Your task to perform on an android device: toggle location history Image 0: 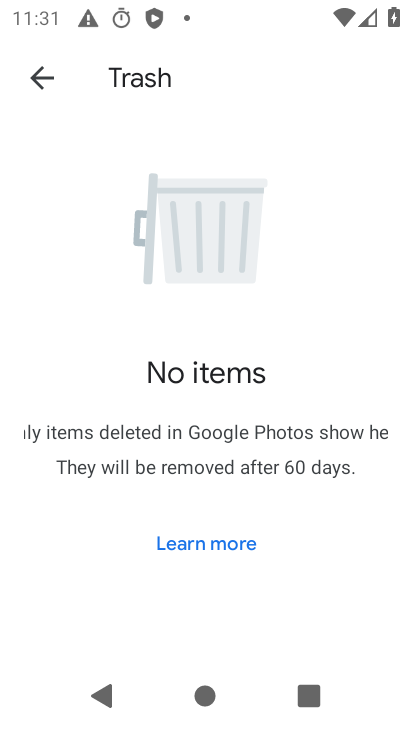
Step 0: press home button
Your task to perform on an android device: toggle location history Image 1: 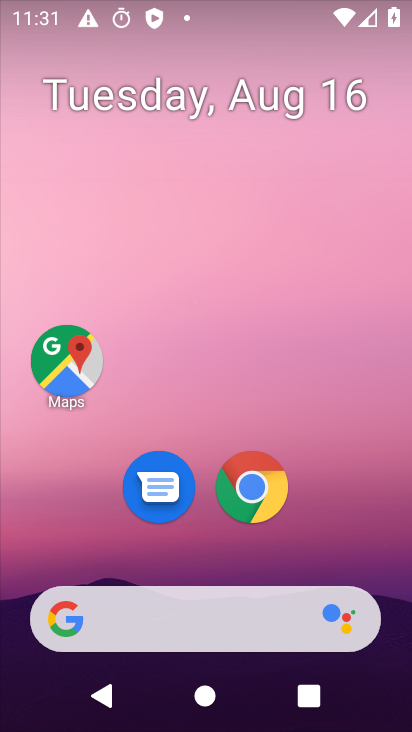
Step 1: drag from (291, 580) to (305, 143)
Your task to perform on an android device: toggle location history Image 2: 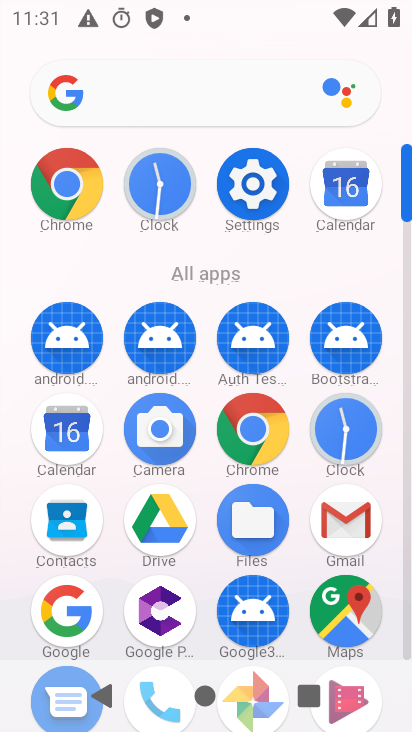
Step 2: click (264, 213)
Your task to perform on an android device: toggle location history Image 3: 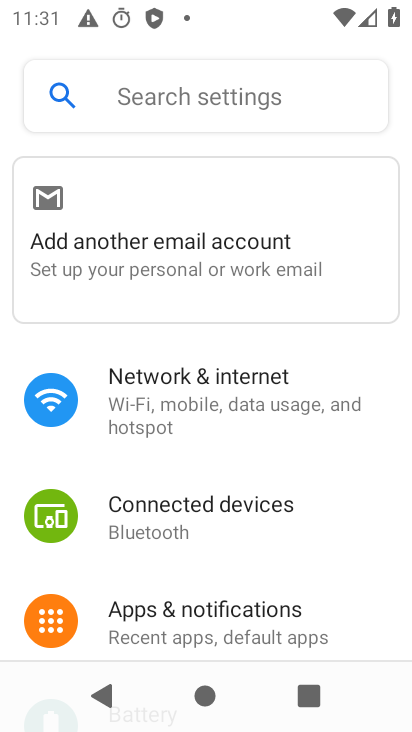
Step 3: drag from (220, 571) to (260, 319)
Your task to perform on an android device: toggle location history Image 4: 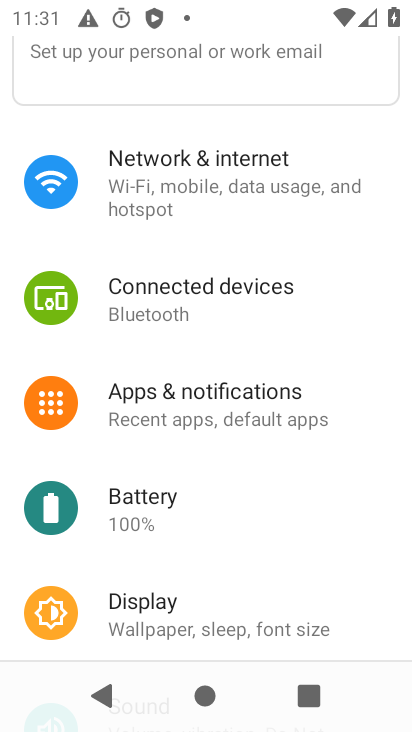
Step 4: drag from (213, 464) to (270, 116)
Your task to perform on an android device: toggle location history Image 5: 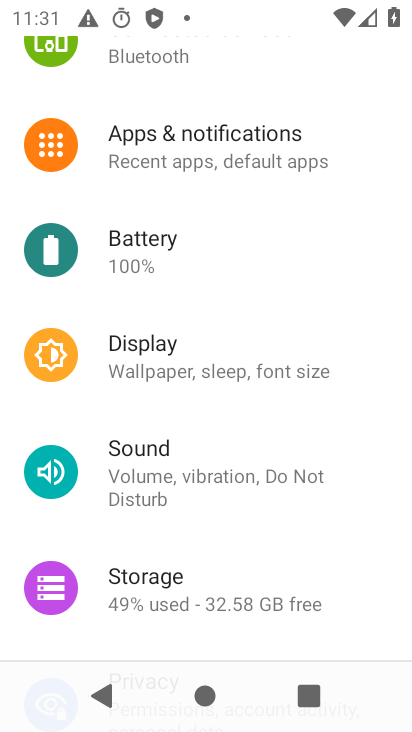
Step 5: drag from (155, 543) to (166, 478)
Your task to perform on an android device: toggle location history Image 6: 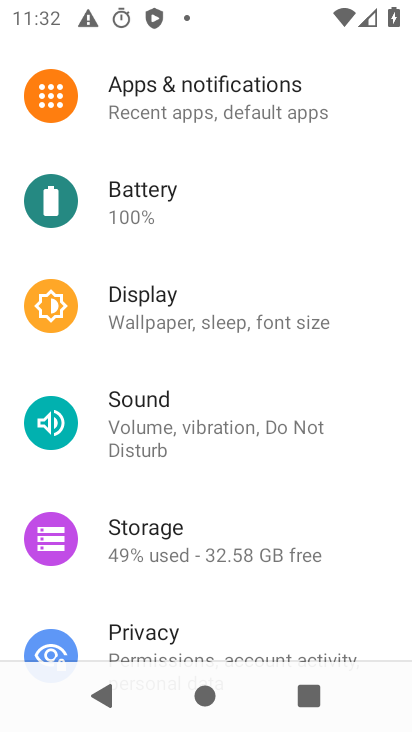
Step 6: drag from (253, 613) to (300, 274)
Your task to perform on an android device: toggle location history Image 7: 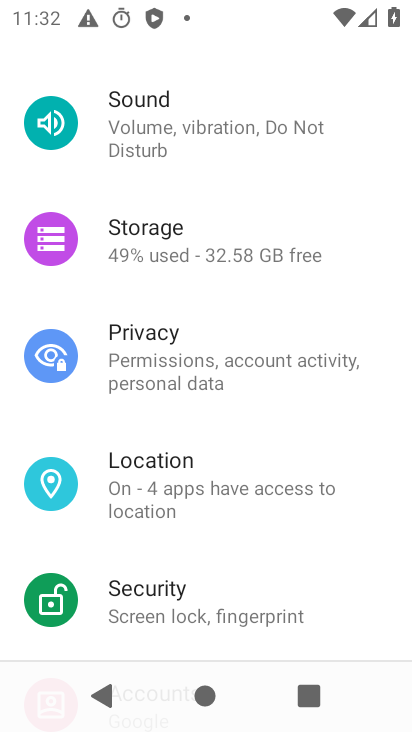
Step 7: click (221, 484)
Your task to perform on an android device: toggle location history Image 8: 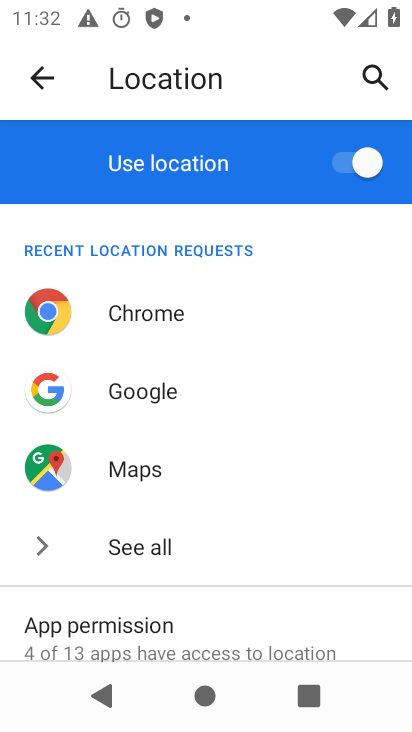
Step 8: drag from (179, 586) to (247, 329)
Your task to perform on an android device: toggle location history Image 9: 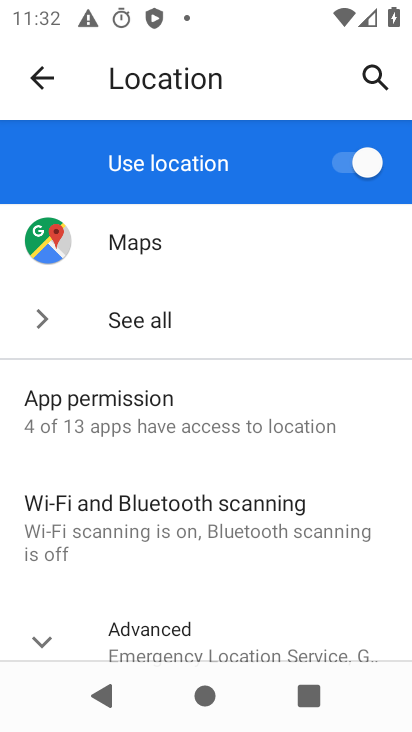
Step 9: click (175, 630)
Your task to perform on an android device: toggle location history Image 10: 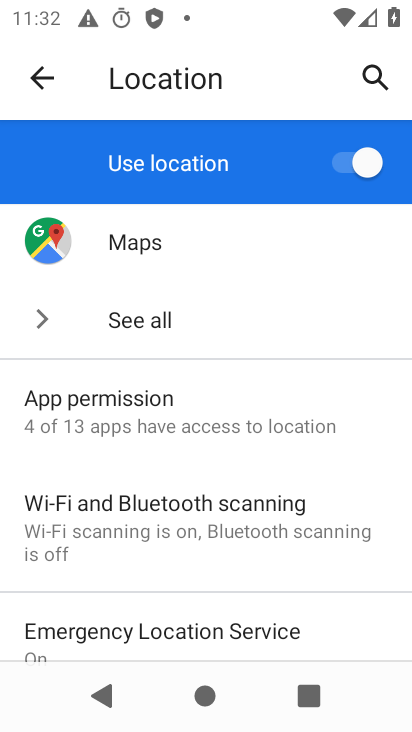
Step 10: drag from (175, 630) to (232, 364)
Your task to perform on an android device: toggle location history Image 11: 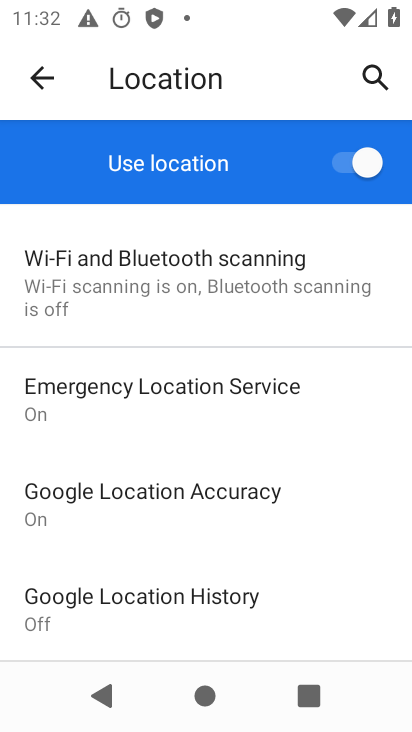
Step 11: click (170, 590)
Your task to perform on an android device: toggle location history Image 12: 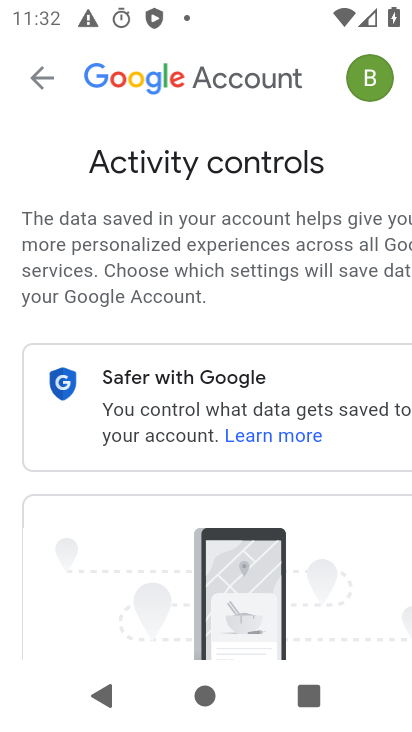
Step 12: drag from (256, 483) to (305, 198)
Your task to perform on an android device: toggle location history Image 13: 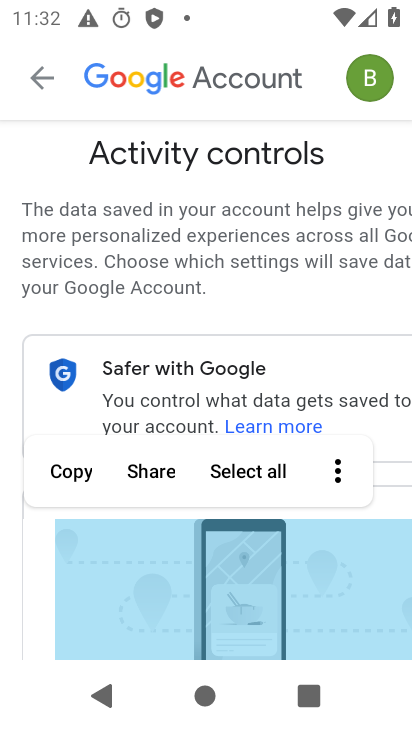
Step 13: click (336, 303)
Your task to perform on an android device: toggle location history Image 14: 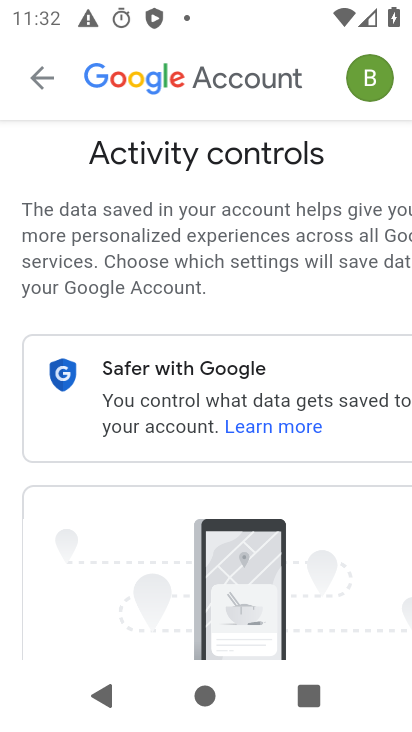
Step 14: drag from (257, 470) to (291, 83)
Your task to perform on an android device: toggle location history Image 15: 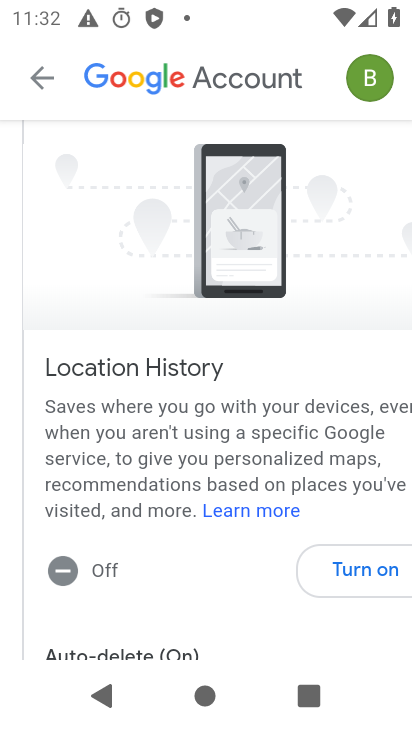
Step 15: click (336, 571)
Your task to perform on an android device: toggle location history Image 16: 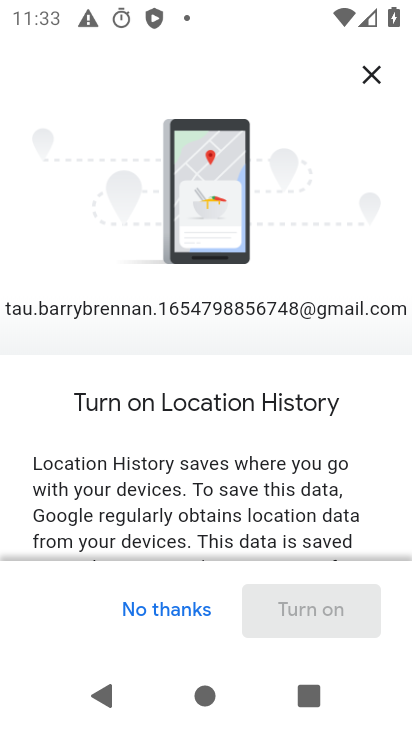
Step 16: drag from (251, 517) to (258, 187)
Your task to perform on an android device: toggle location history Image 17: 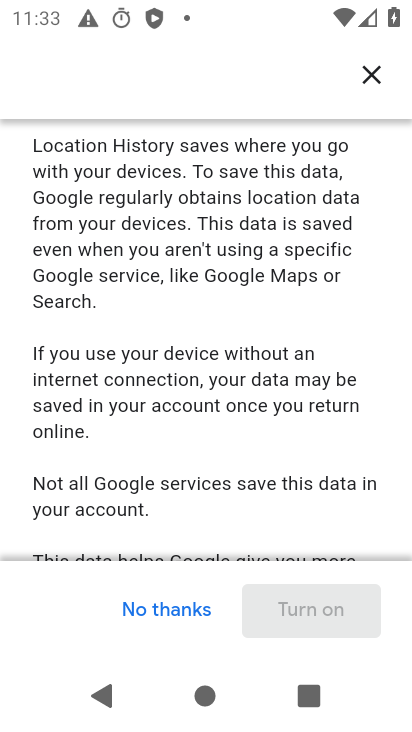
Step 17: drag from (242, 502) to (253, 303)
Your task to perform on an android device: toggle location history Image 18: 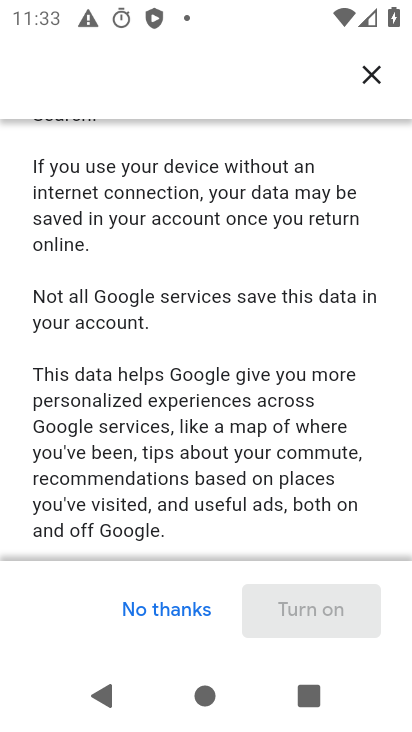
Step 18: drag from (319, 525) to (370, 52)
Your task to perform on an android device: toggle location history Image 19: 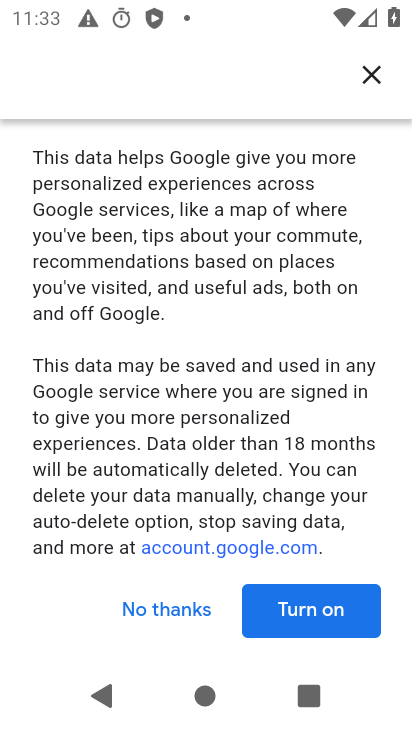
Step 19: click (328, 597)
Your task to perform on an android device: toggle location history Image 20: 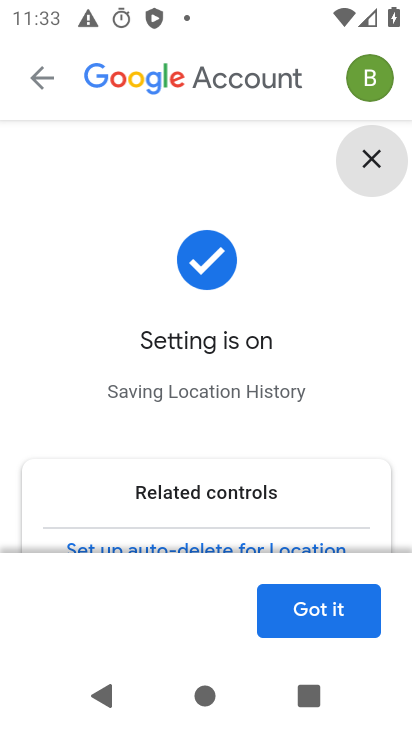
Step 20: click (339, 614)
Your task to perform on an android device: toggle location history Image 21: 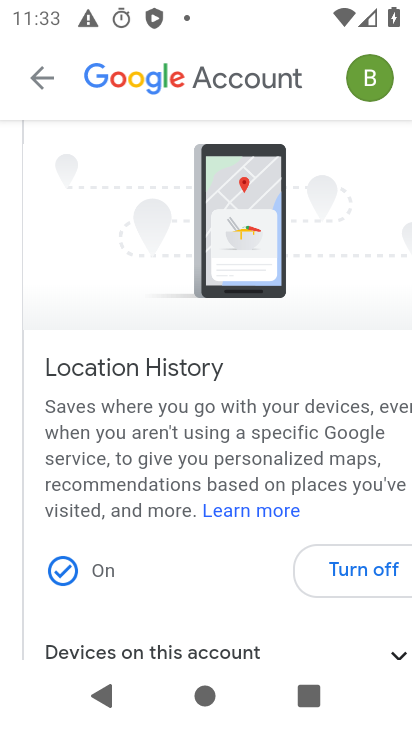
Step 21: task complete